Your task to perform on an android device: open chrome privacy settings Image 0: 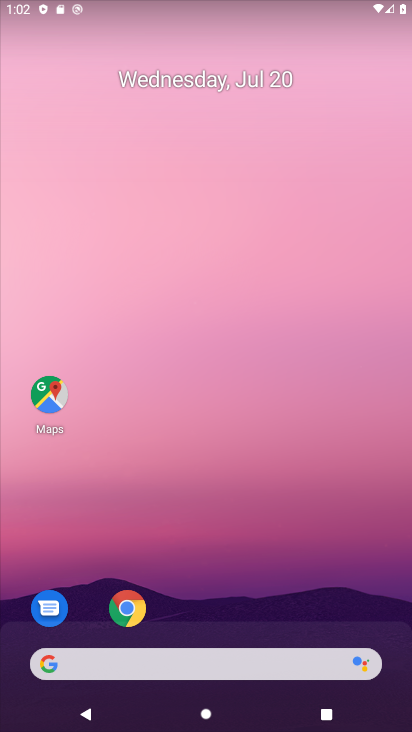
Step 0: click (129, 608)
Your task to perform on an android device: open chrome privacy settings Image 1: 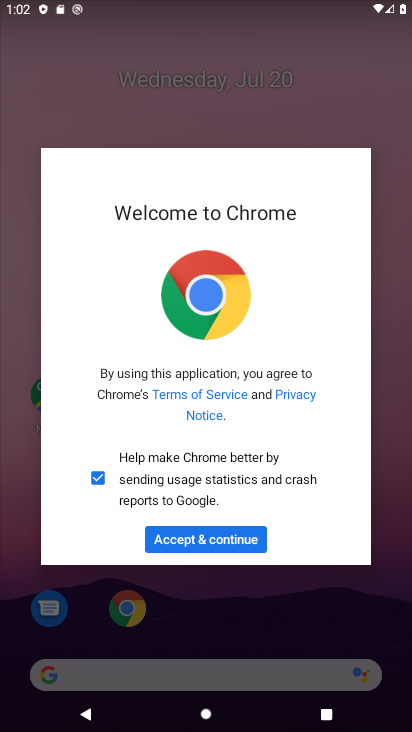
Step 1: click (187, 541)
Your task to perform on an android device: open chrome privacy settings Image 2: 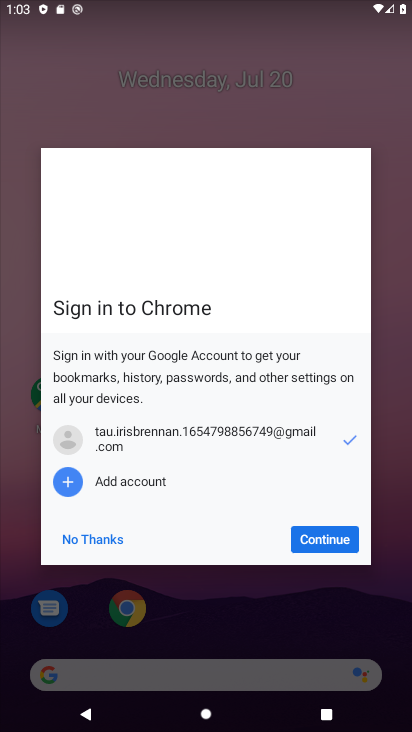
Step 2: click (313, 539)
Your task to perform on an android device: open chrome privacy settings Image 3: 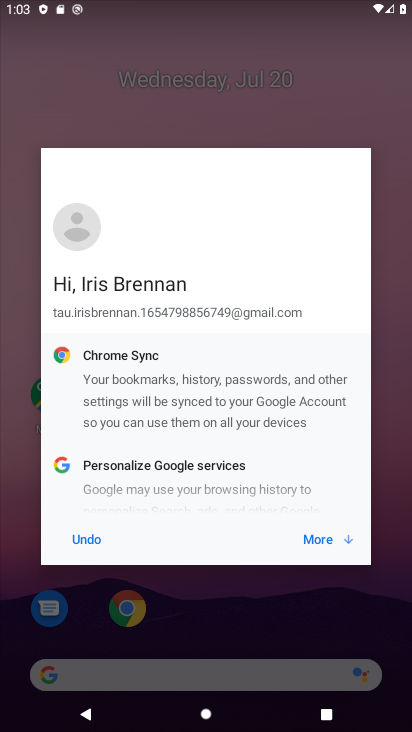
Step 3: click (320, 538)
Your task to perform on an android device: open chrome privacy settings Image 4: 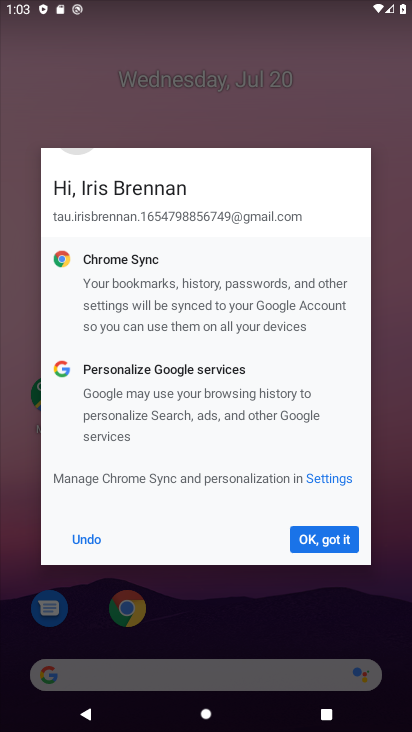
Step 4: click (320, 538)
Your task to perform on an android device: open chrome privacy settings Image 5: 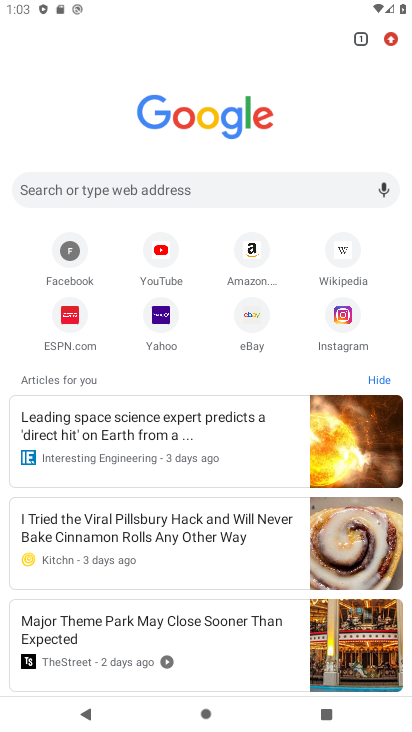
Step 5: click (392, 41)
Your task to perform on an android device: open chrome privacy settings Image 6: 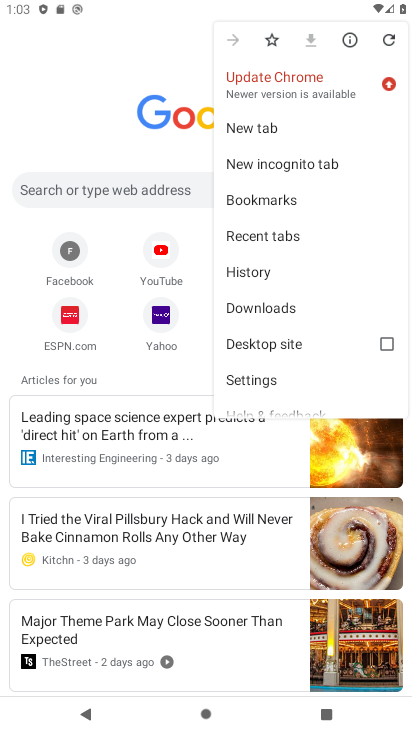
Step 6: click (260, 378)
Your task to perform on an android device: open chrome privacy settings Image 7: 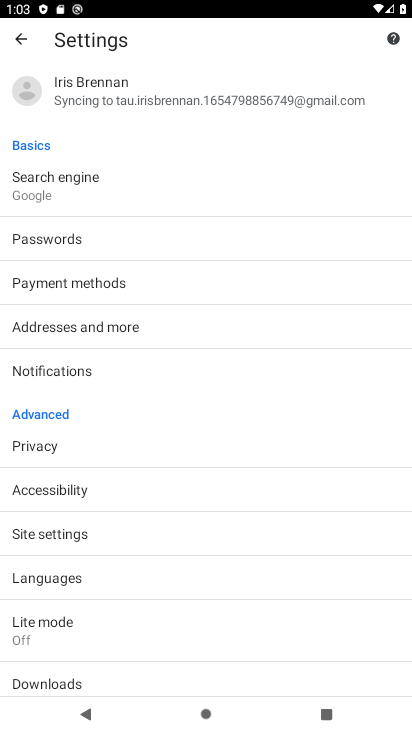
Step 7: click (40, 450)
Your task to perform on an android device: open chrome privacy settings Image 8: 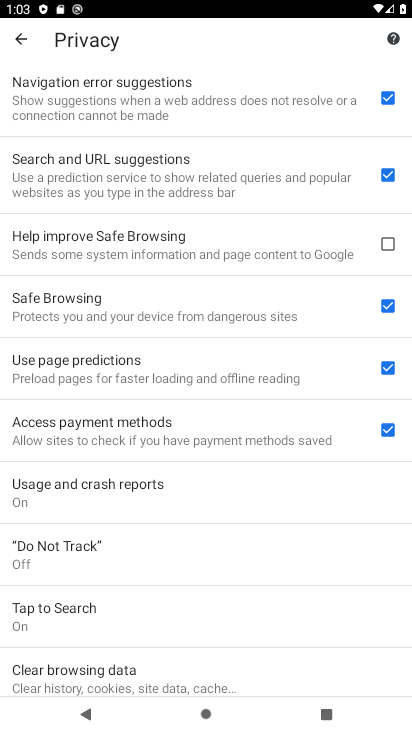
Step 8: task complete